Your task to perform on an android device: toggle pop-ups in chrome Image 0: 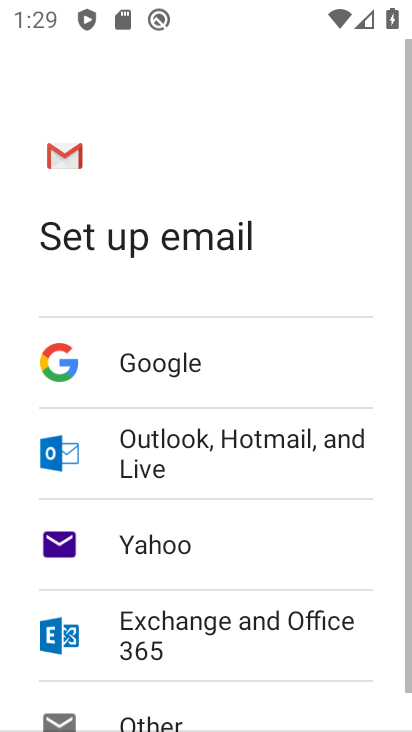
Step 0: press home button
Your task to perform on an android device: toggle pop-ups in chrome Image 1: 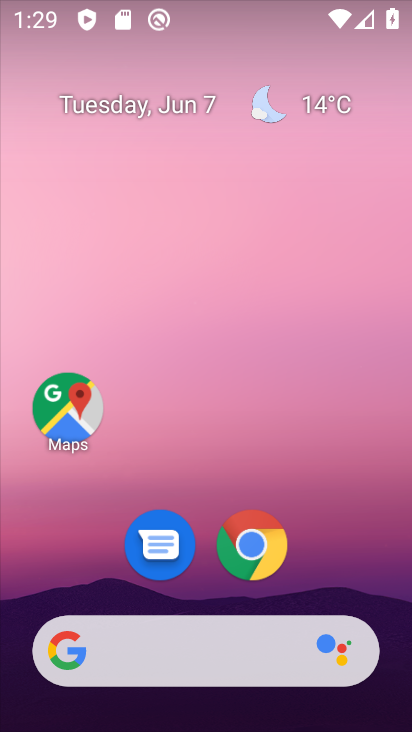
Step 1: click (250, 561)
Your task to perform on an android device: toggle pop-ups in chrome Image 2: 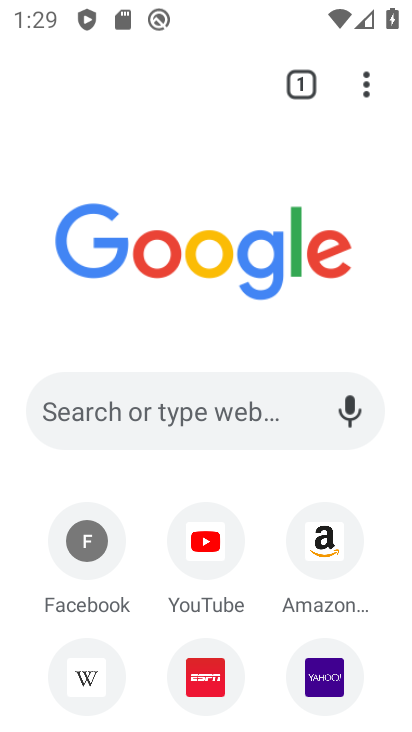
Step 2: click (371, 79)
Your task to perform on an android device: toggle pop-ups in chrome Image 3: 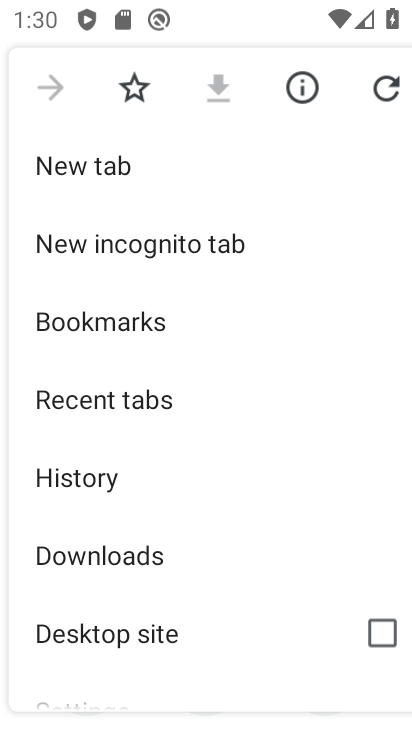
Step 3: drag from (257, 599) to (236, 174)
Your task to perform on an android device: toggle pop-ups in chrome Image 4: 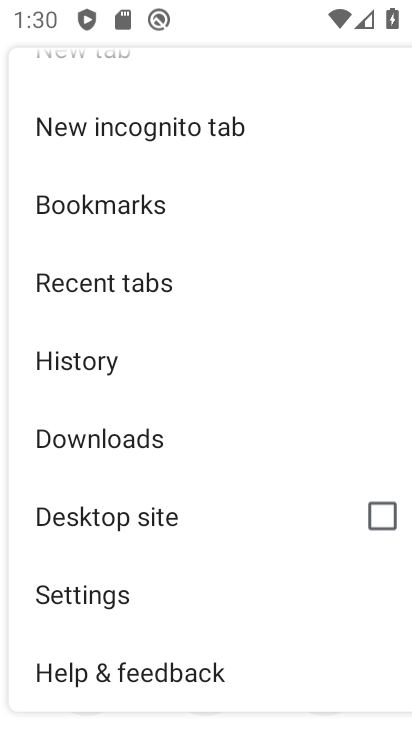
Step 4: click (172, 597)
Your task to perform on an android device: toggle pop-ups in chrome Image 5: 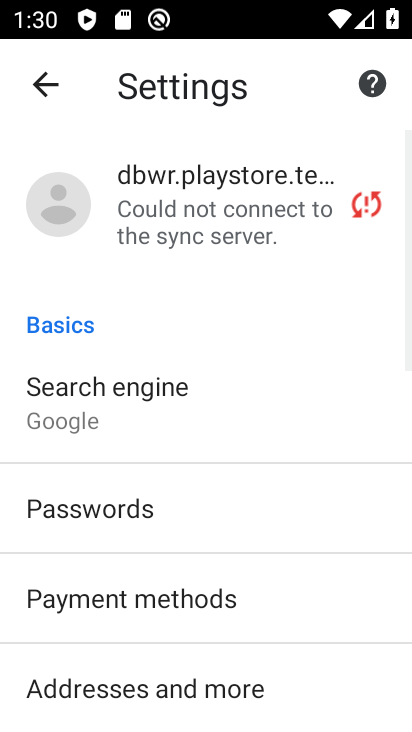
Step 5: drag from (210, 601) to (257, 123)
Your task to perform on an android device: toggle pop-ups in chrome Image 6: 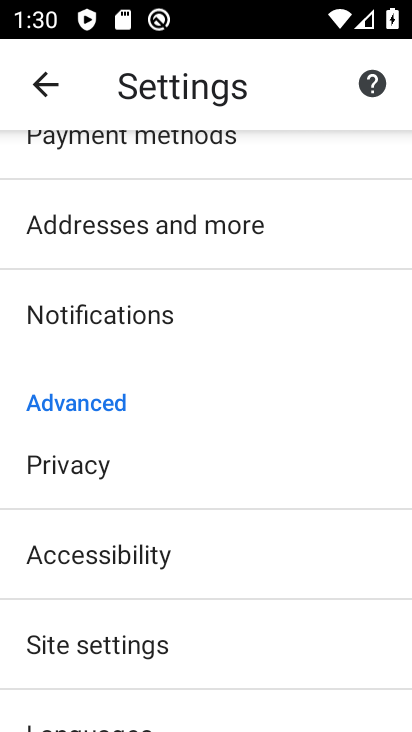
Step 6: click (211, 655)
Your task to perform on an android device: toggle pop-ups in chrome Image 7: 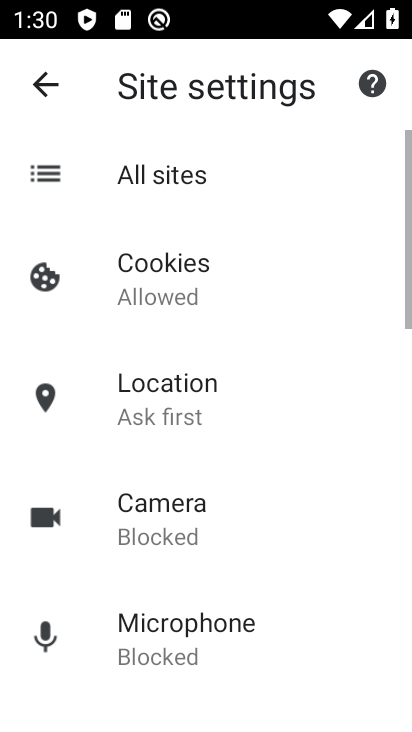
Step 7: drag from (219, 609) to (286, 148)
Your task to perform on an android device: toggle pop-ups in chrome Image 8: 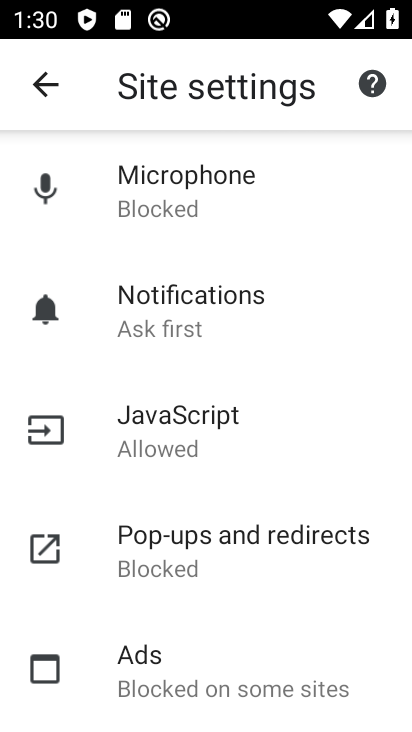
Step 8: click (232, 531)
Your task to perform on an android device: toggle pop-ups in chrome Image 9: 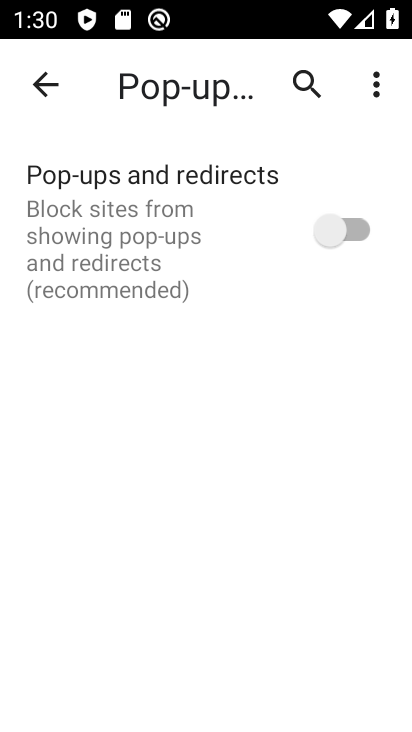
Step 9: click (345, 240)
Your task to perform on an android device: toggle pop-ups in chrome Image 10: 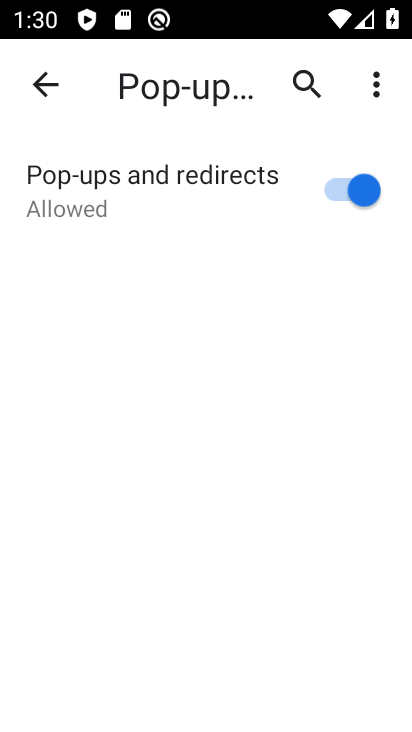
Step 10: task complete